Your task to perform on an android device: Show me popular games on the Play Store Image 0: 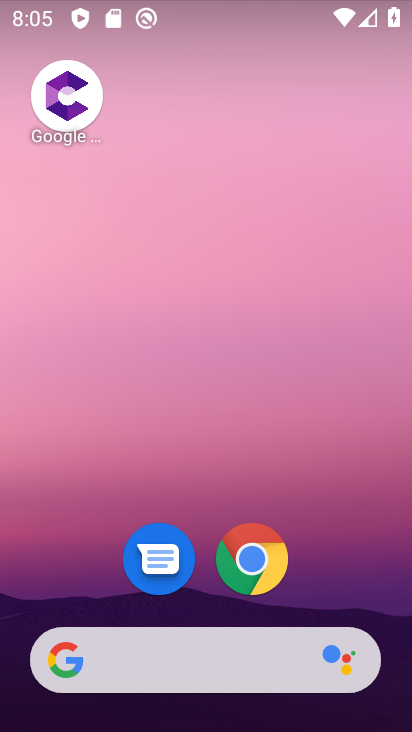
Step 0: drag from (242, 661) to (234, 120)
Your task to perform on an android device: Show me popular games on the Play Store Image 1: 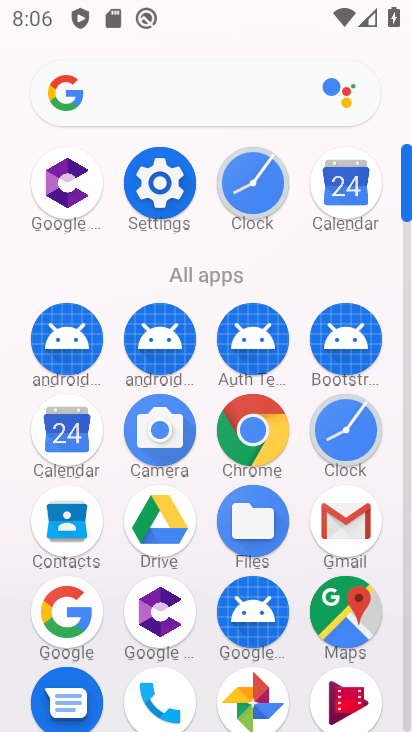
Step 1: drag from (219, 657) to (190, 34)
Your task to perform on an android device: Show me popular games on the Play Store Image 2: 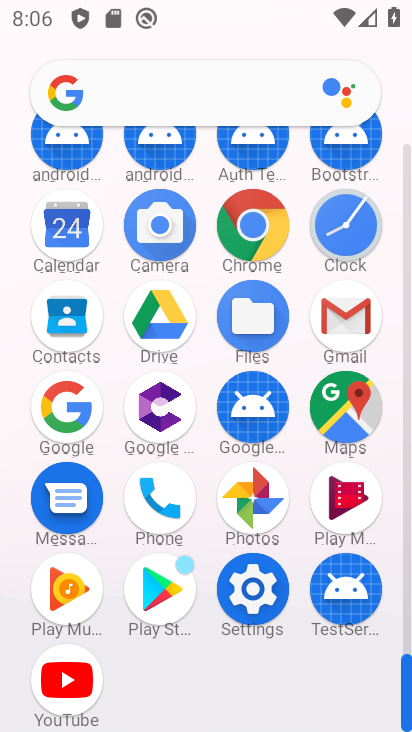
Step 2: click (170, 587)
Your task to perform on an android device: Show me popular games on the Play Store Image 3: 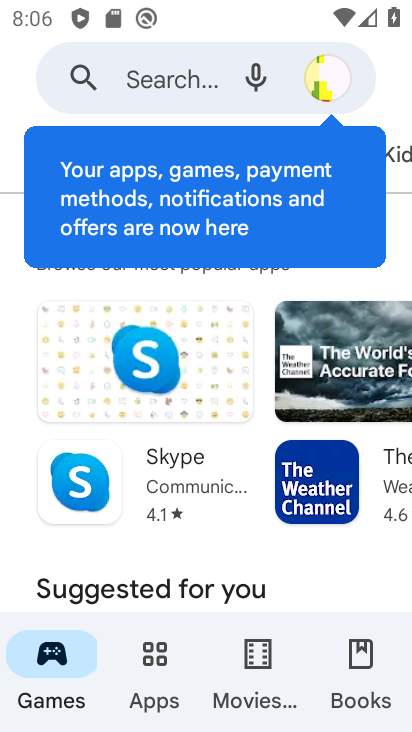
Step 3: drag from (215, 542) to (119, 225)
Your task to perform on an android device: Show me popular games on the Play Store Image 4: 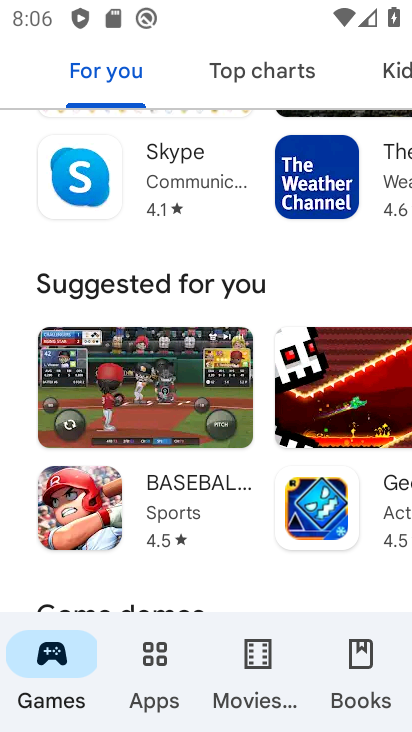
Step 4: drag from (229, 541) to (190, 161)
Your task to perform on an android device: Show me popular games on the Play Store Image 5: 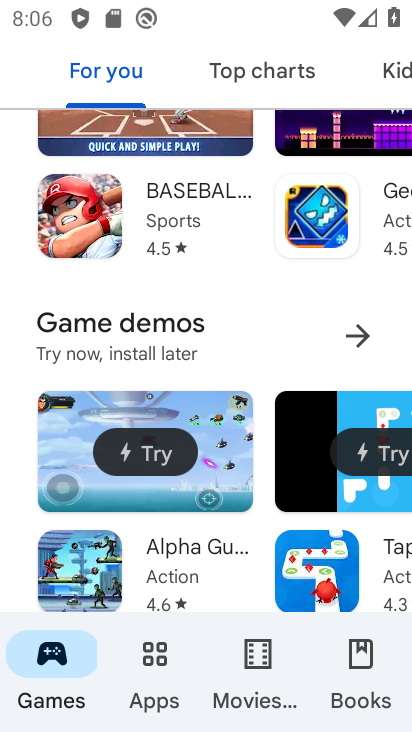
Step 5: drag from (241, 542) to (199, 189)
Your task to perform on an android device: Show me popular games on the Play Store Image 6: 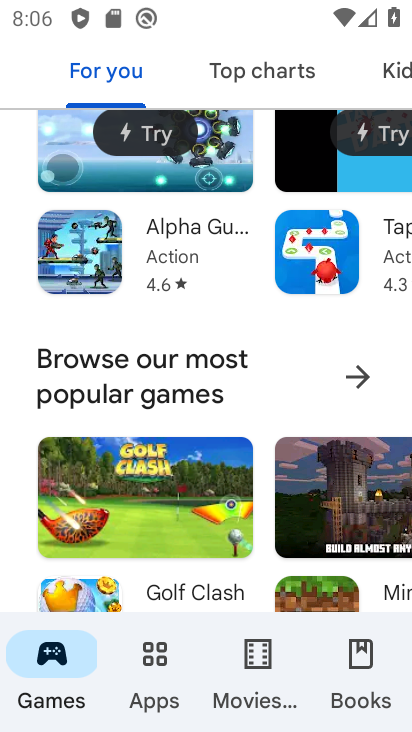
Step 6: click (350, 381)
Your task to perform on an android device: Show me popular games on the Play Store Image 7: 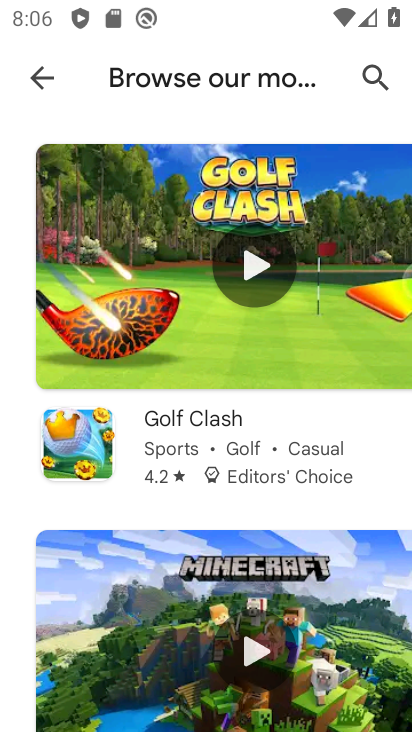
Step 7: task complete